Your task to perform on an android device: Open Google Chrome Image 0: 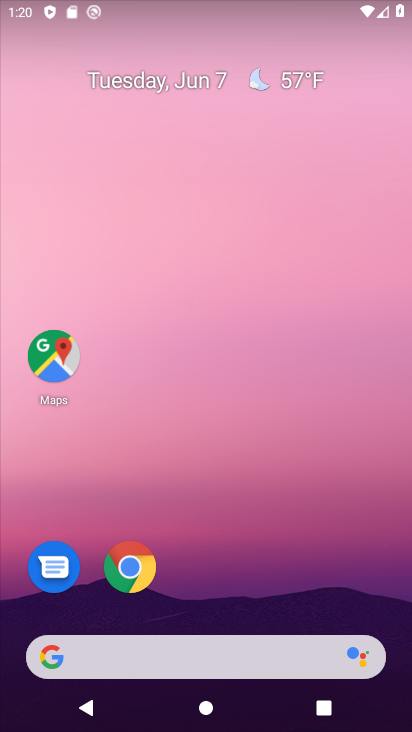
Step 0: click (125, 567)
Your task to perform on an android device: Open Google Chrome Image 1: 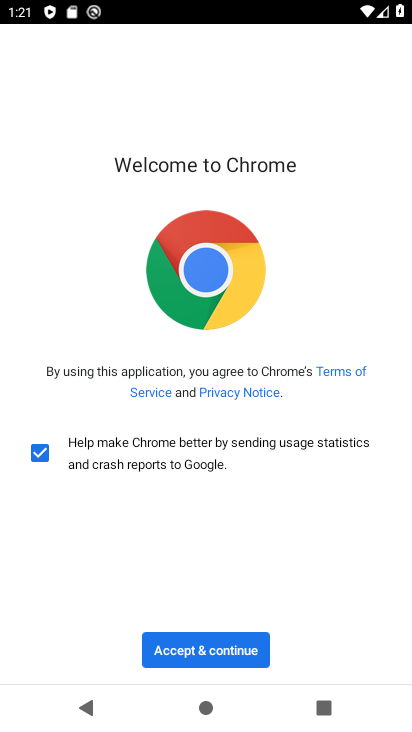
Step 1: click (221, 649)
Your task to perform on an android device: Open Google Chrome Image 2: 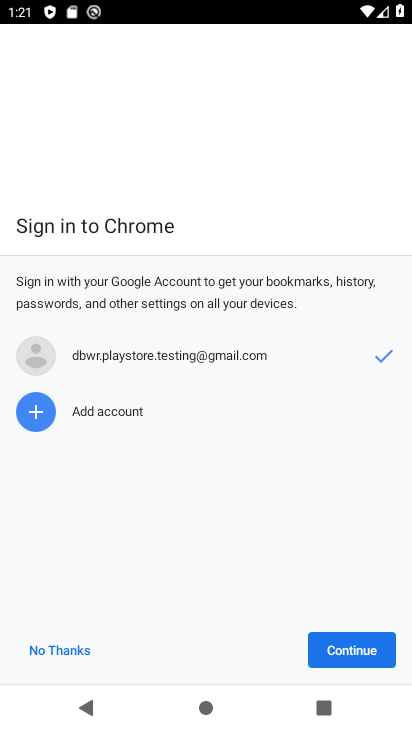
Step 2: click (328, 635)
Your task to perform on an android device: Open Google Chrome Image 3: 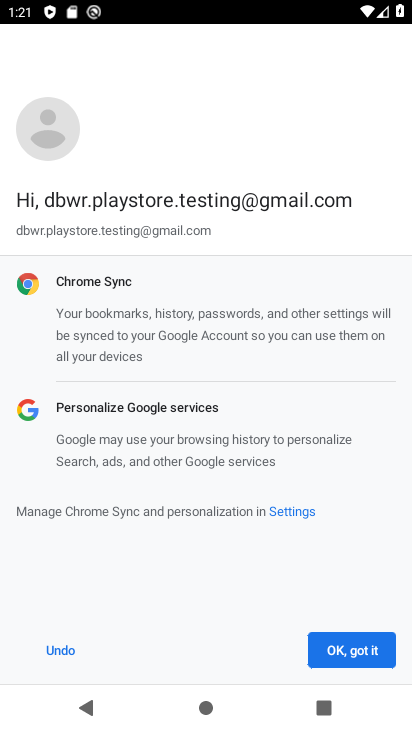
Step 3: click (342, 645)
Your task to perform on an android device: Open Google Chrome Image 4: 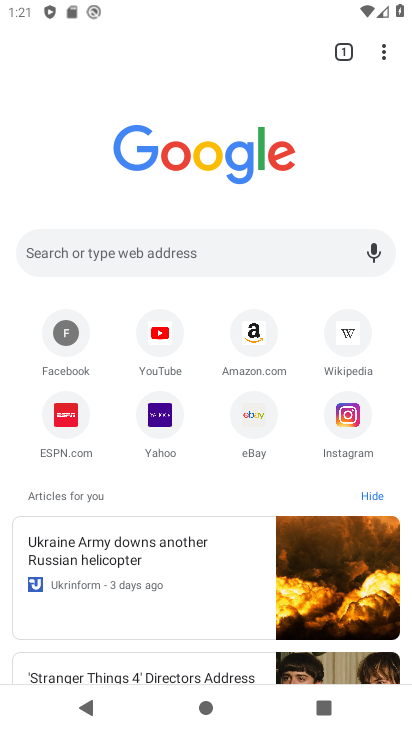
Step 4: task complete